Your task to perform on an android device: open app "Gboard" Image 0: 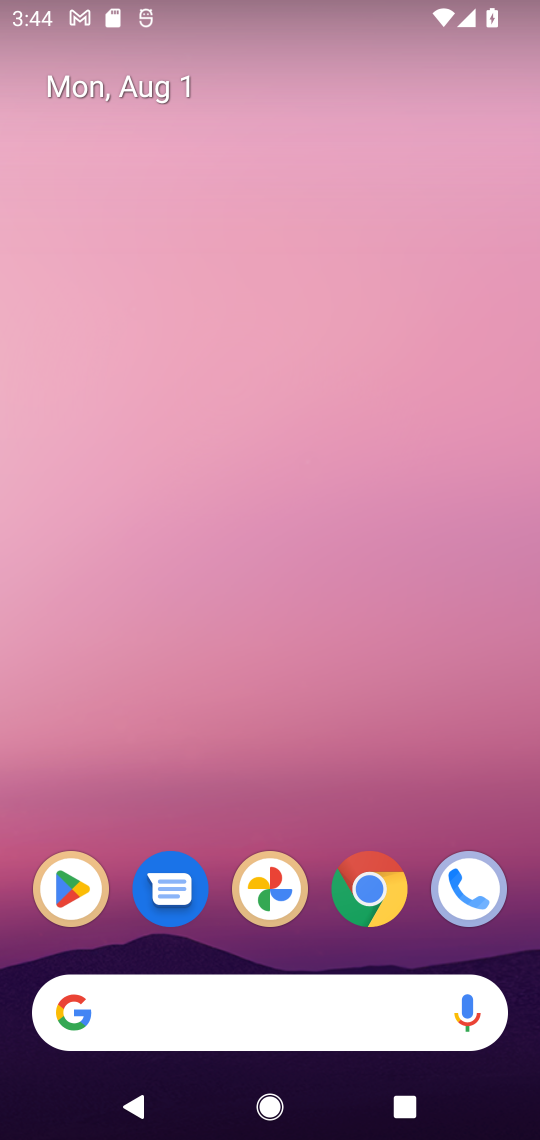
Step 0: click (78, 885)
Your task to perform on an android device: open app "Gboard" Image 1: 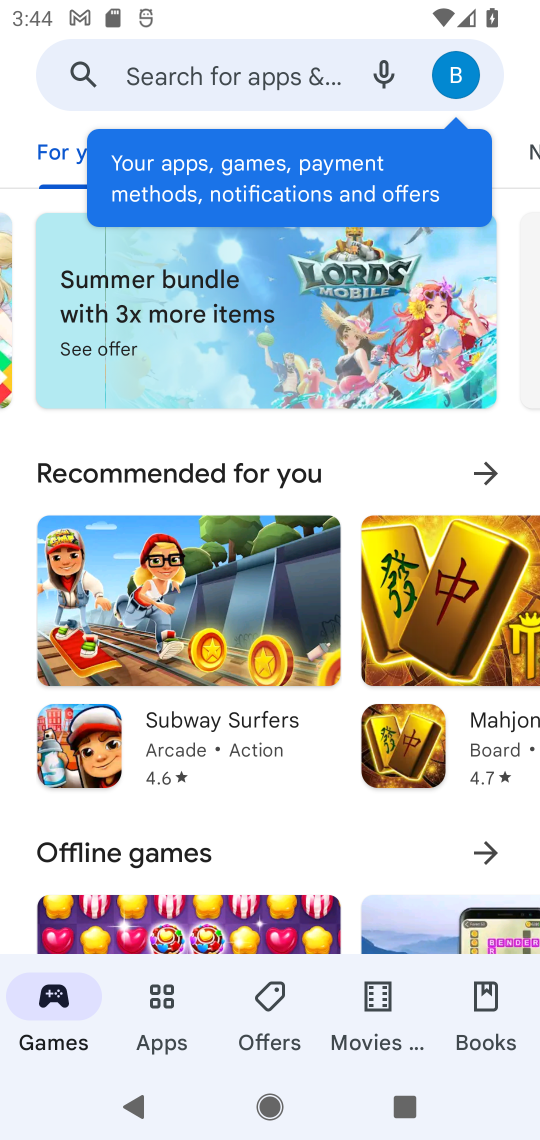
Step 1: click (256, 91)
Your task to perform on an android device: open app "Gboard" Image 2: 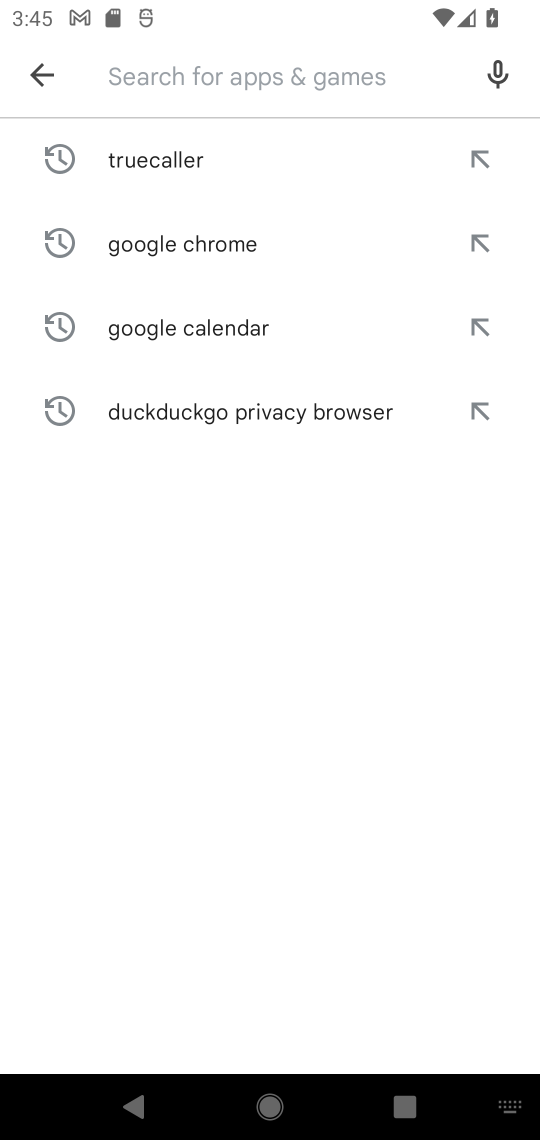
Step 2: type "Gboard"
Your task to perform on an android device: open app "Gboard" Image 3: 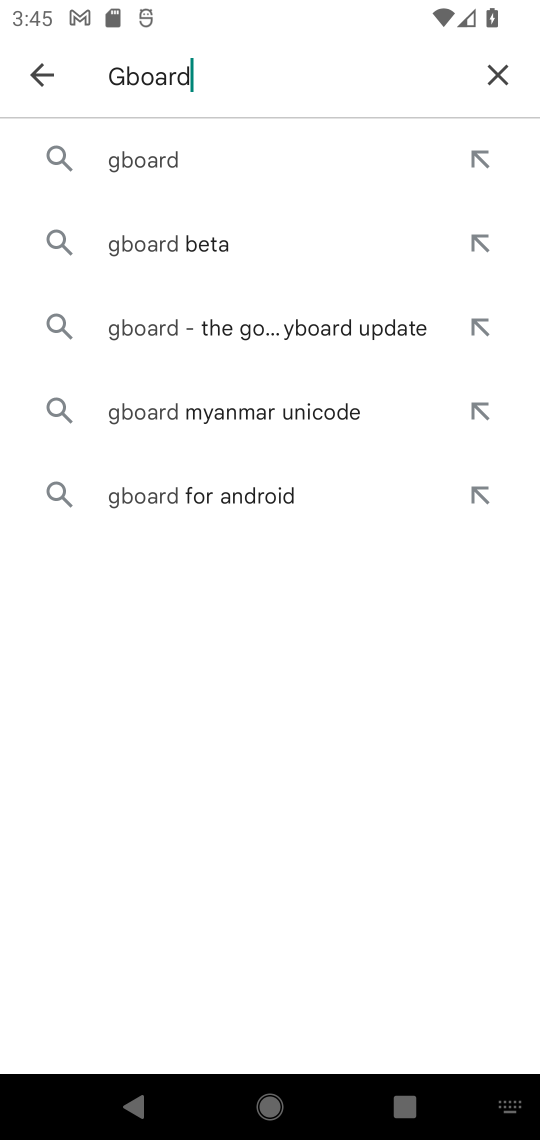
Step 3: click (132, 175)
Your task to perform on an android device: open app "Gboard" Image 4: 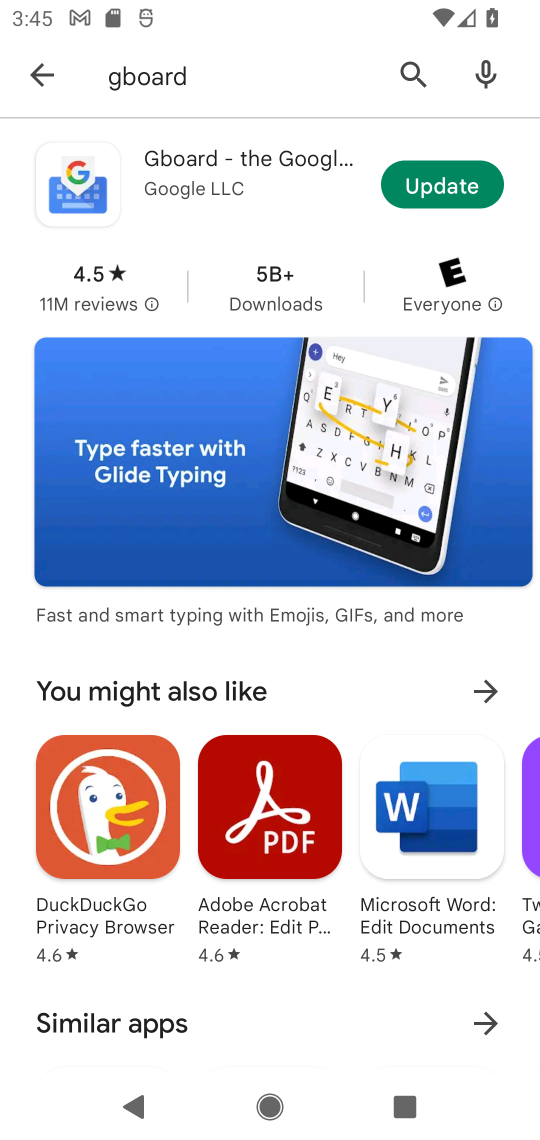
Step 4: click (132, 175)
Your task to perform on an android device: open app "Gboard" Image 5: 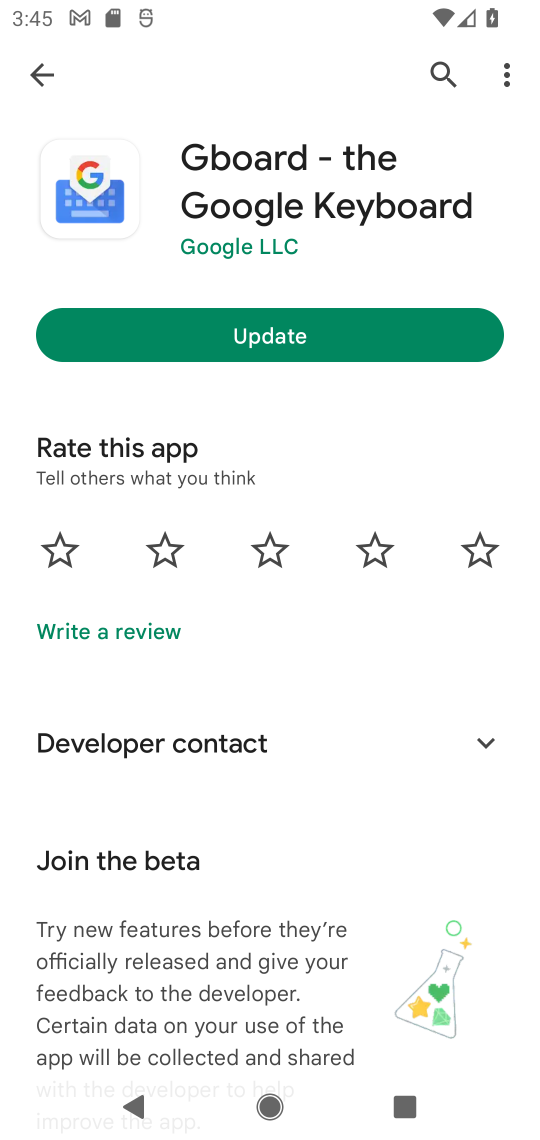
Step 5: task complete